Your task to perform on an android device: Open Chrome and go to settings Image 0: 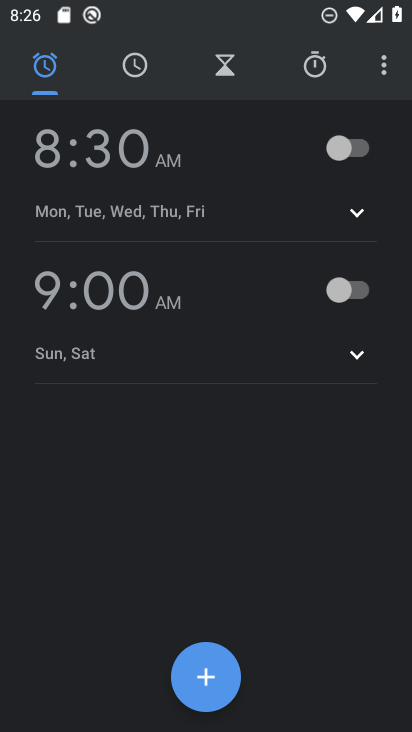
Step 0: press back button
Your task to perform on an android device: Open Chrome and go to settings Image 1: 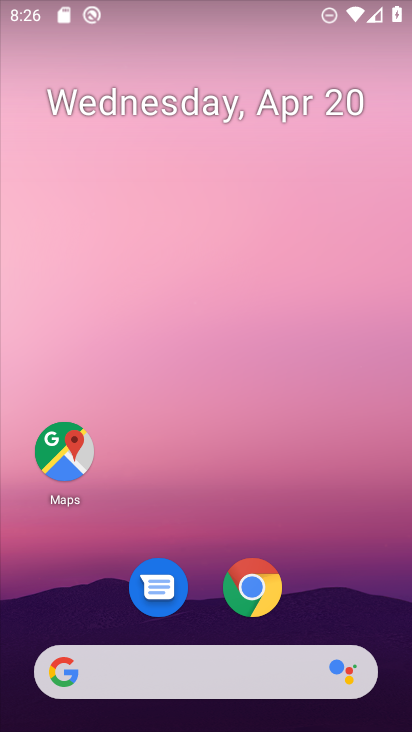
Step 1: click (260, 591)
Your task to perform on an android device: Open Chrome and go to settings Image 2: 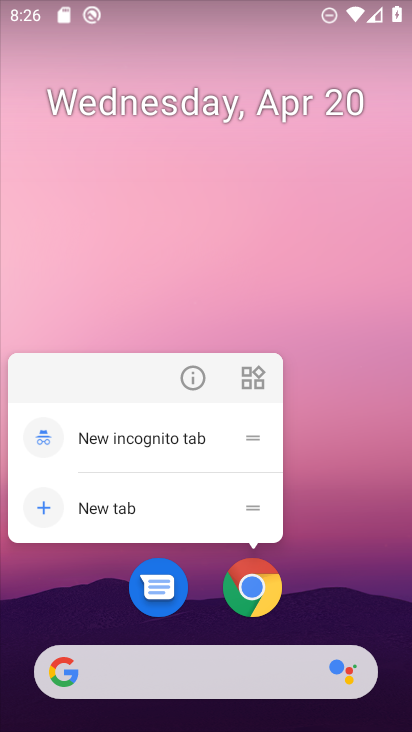
Step 2: click (260, 591)
Your task to perform on an android device: Open Chrome and go to settings Image 3: 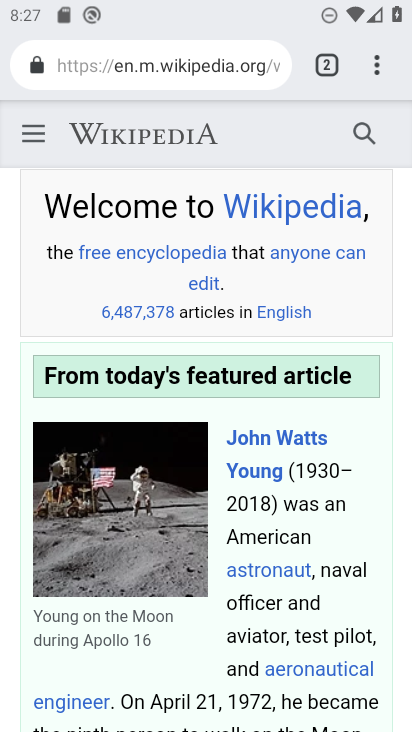
Step 3: click (375, 69)
Your task to perform on an android device: Open Chrome and go to settings Image 4: 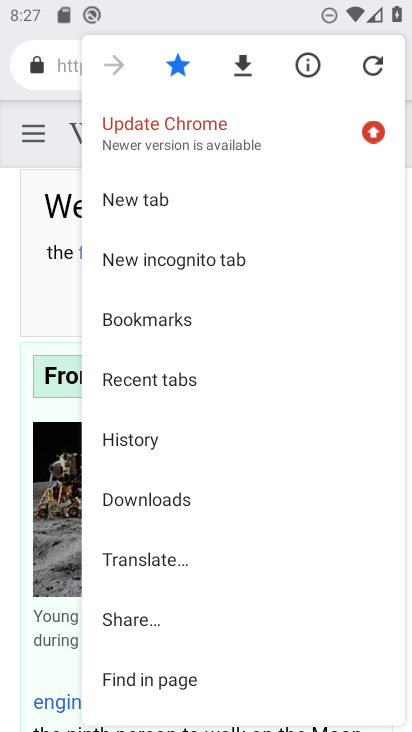
Step 4: drag from (253, 560) to (289, 307)
Your task to perform on an android device: Open Chrome and go to settings Image 5: 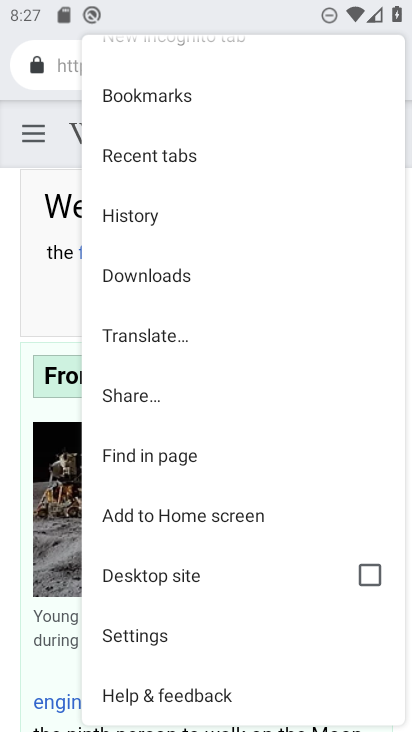
Step 5: click (193, 634)
Your task to perform on an android device: Open Chrome and go to settings Image 6: 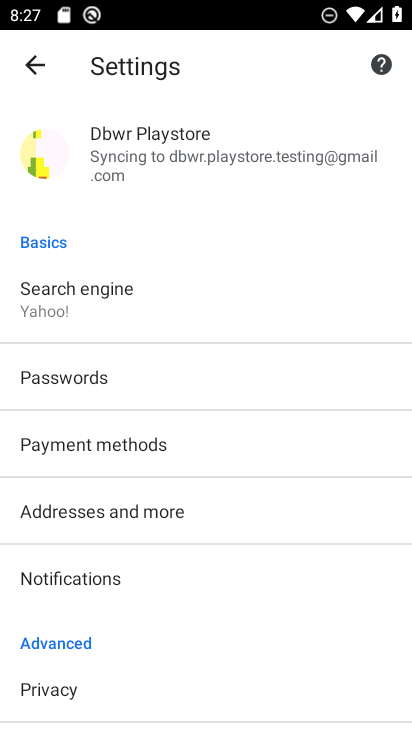
Step 6: task complete